Your task to perform on an android device: see sites visited before in the chrome app Image 0: 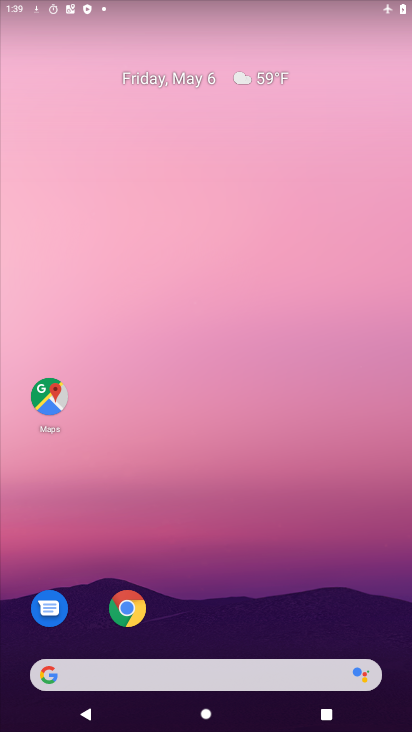
Step 0: click (175, 641)
Your task to perform on an android device: see sites visited before in the chrome app Image 1: 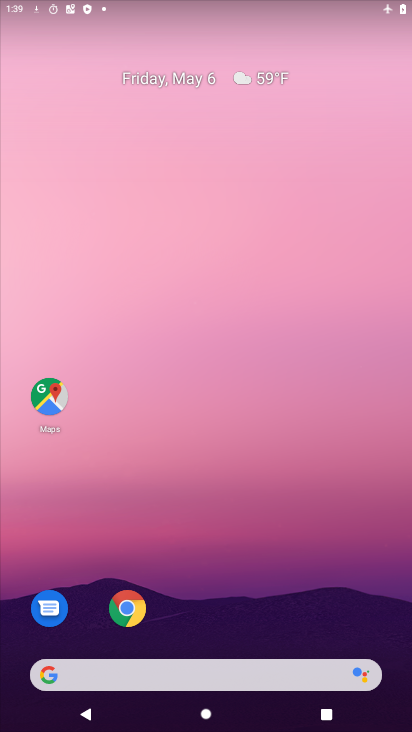
Step 1: click (127, 605)
Your task to perform on an android device: see sites visited before in the chrome app Image 2: 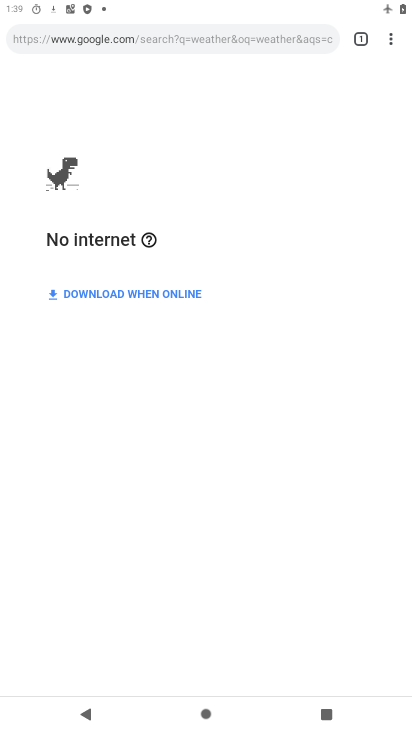
Step 2: click (392, 36)
Your task to perform on an android device: see sites visited before in the chrome app Image 3: 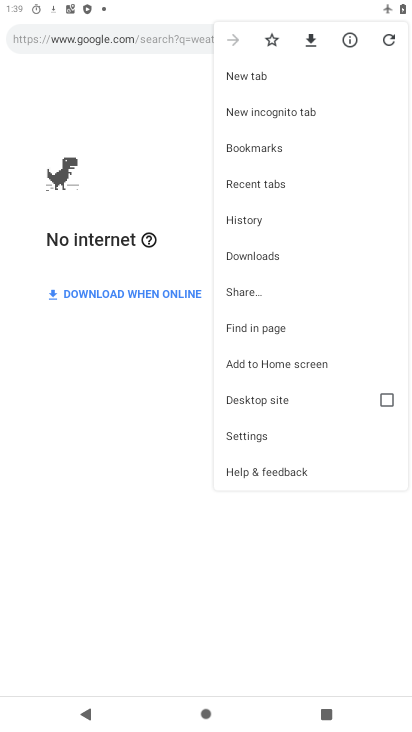
Step 3: click (252, 228)
Your task to perform on an android device: see sites visited before in the chrome app Image 4: 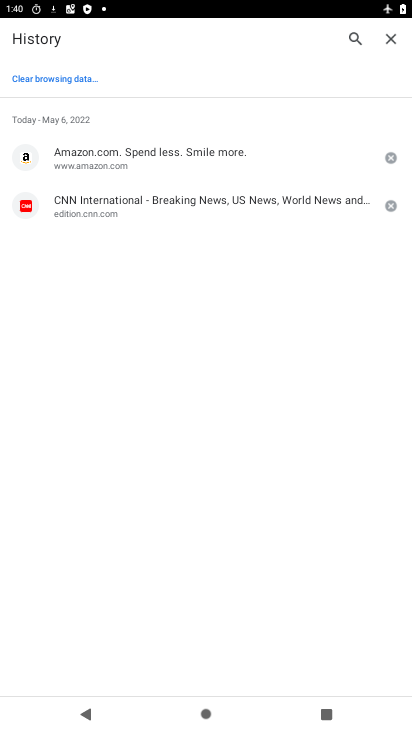
Step 4: task complete